Your task to perform on an android device: all mails in gmail Image 0: 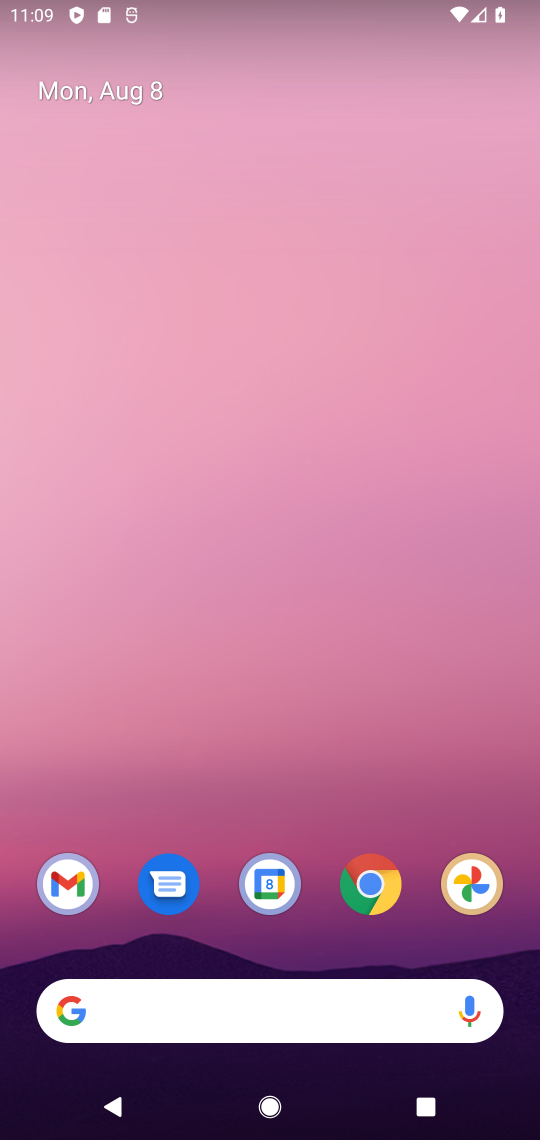
Step 0: click (67, 886)
Your task to perform on an android device: all mails in gmail Image 1: 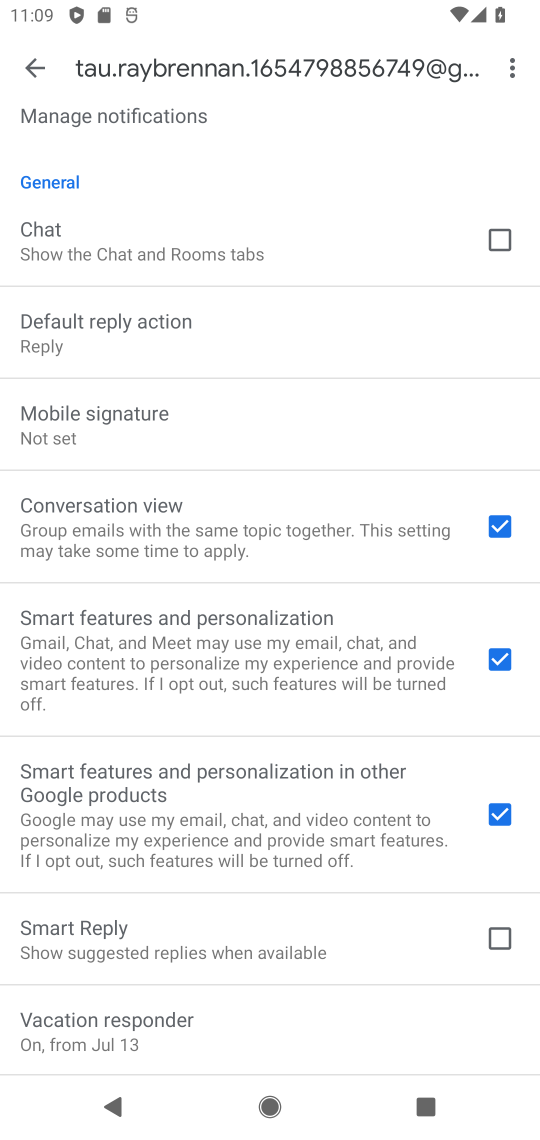
Step 1: click (36, 73)
Your task to perform on an android device: all mails in gmail Image 2: 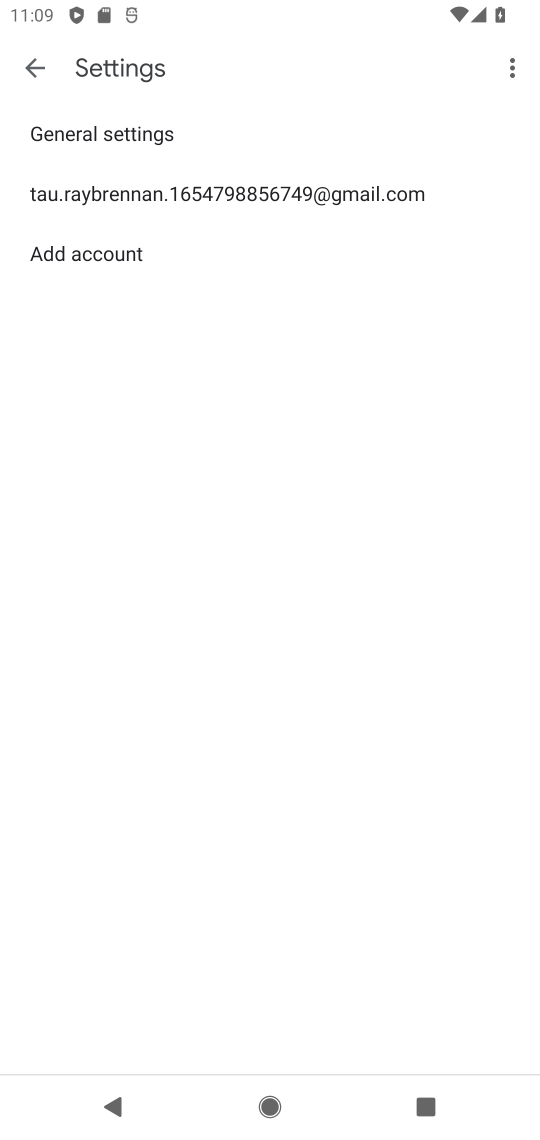
Step 2: click (36, 73)
Your task to perform on an android device: all mails in gmail Image 3: 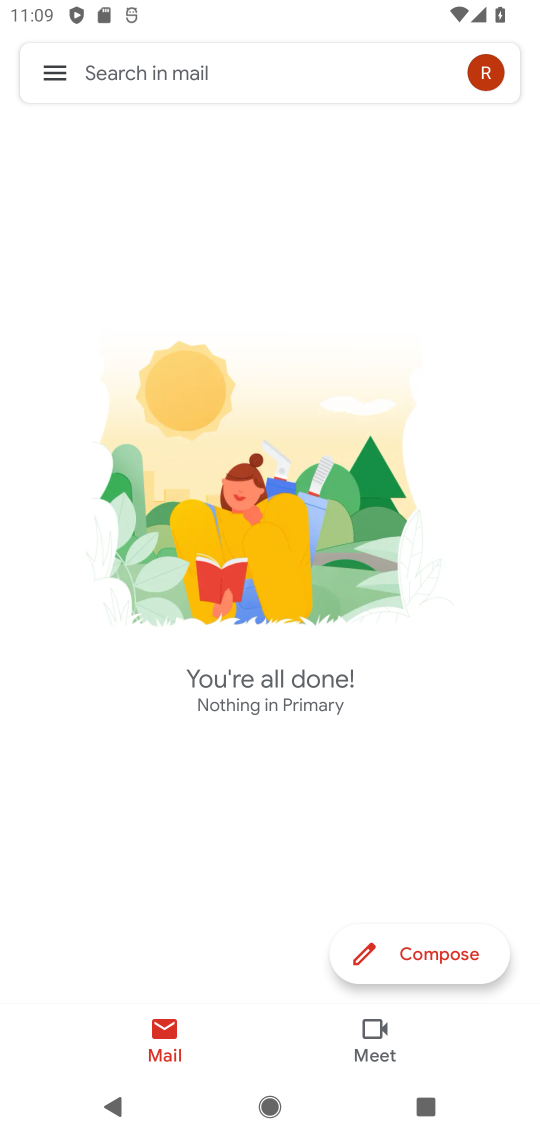
Step 3: click (53, 73)
Your task to perform on an android device: all mails in gmail Image 4: 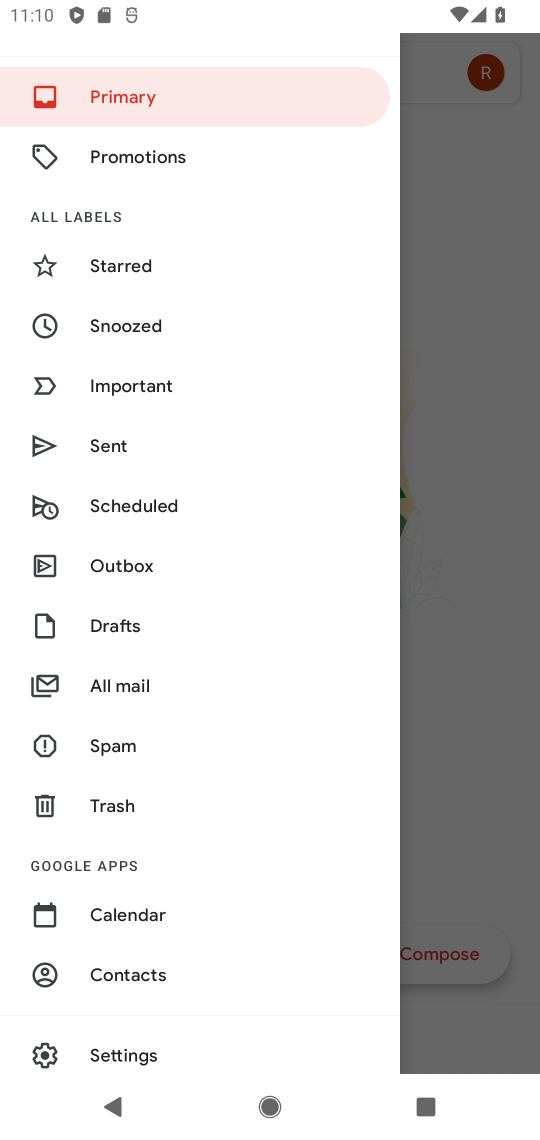
Step 4: click (132, 688)
Your task to perform on an android device: all mails in gmail Image 5: 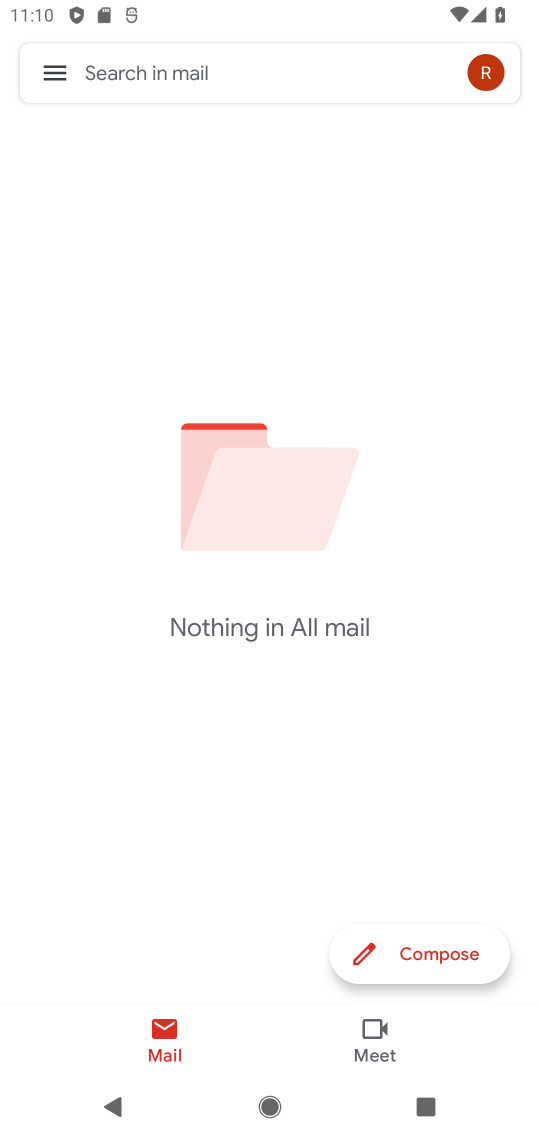
Step 5: task complete